Your task to perform on an android device: turn off priority inbox in the gmail app Image 0: 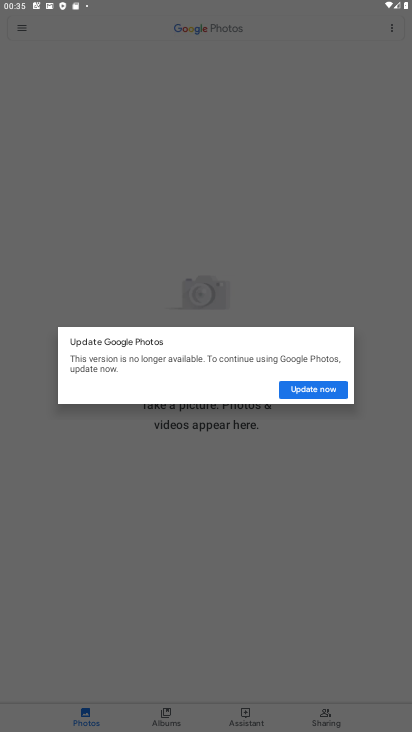
Step 0: press home button
Your task to perform on an android device: turn off priority inbox in the gmail app Image 1: 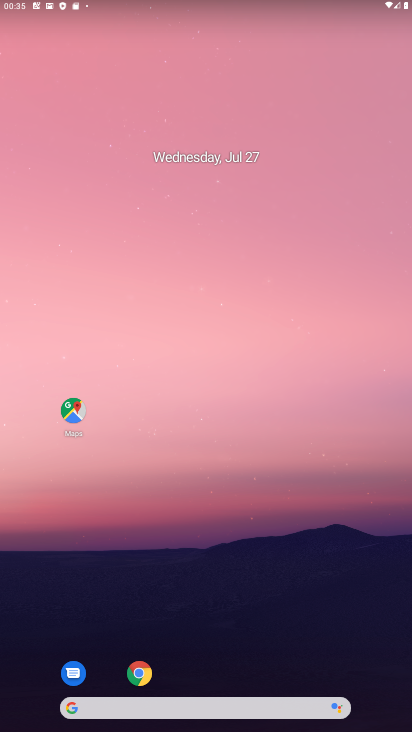
Step 1: drag from (182, 655) to (201, 288)
Your task to perform on an android device: turn off priority inbox in the gmail app Image 2: 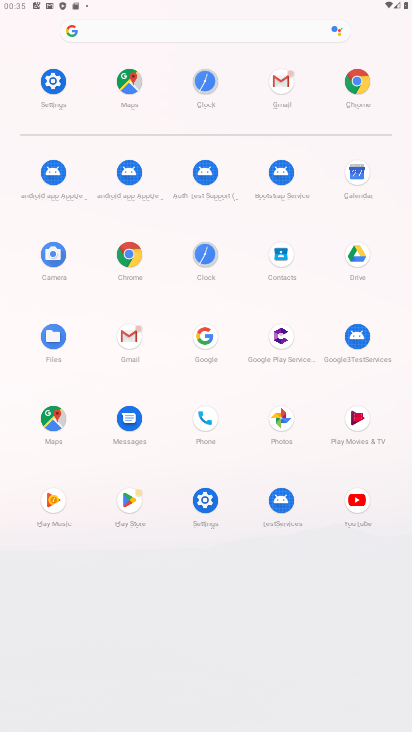
Step 2: click (131, 327)
Your task to perform on an android device: turn off priority inbox in the gmail app Image 3: 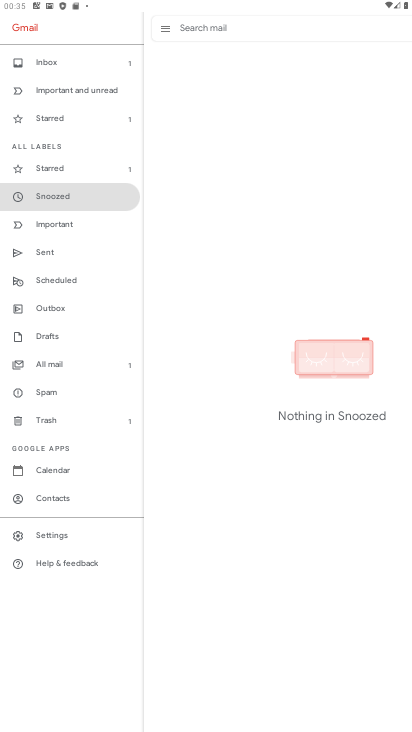
Step 3: click (46, 532)
Your task to perform on an android device: turn off priority inbox in the gmail app Image 4: 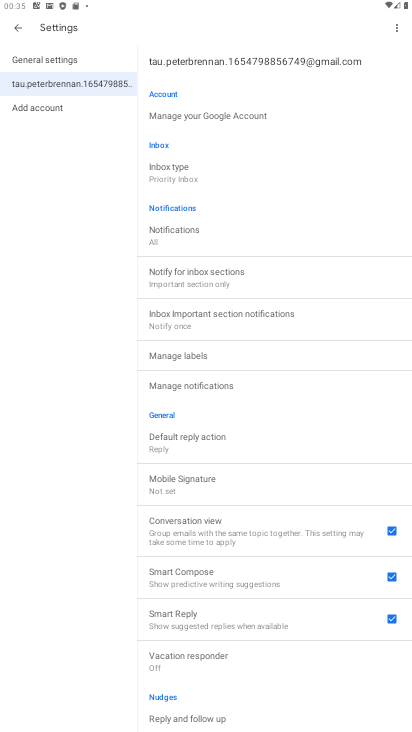
Step 4: click (200, 172)
Your task to perform on an android device: turn off priority inbox in the gmail app Image 5: 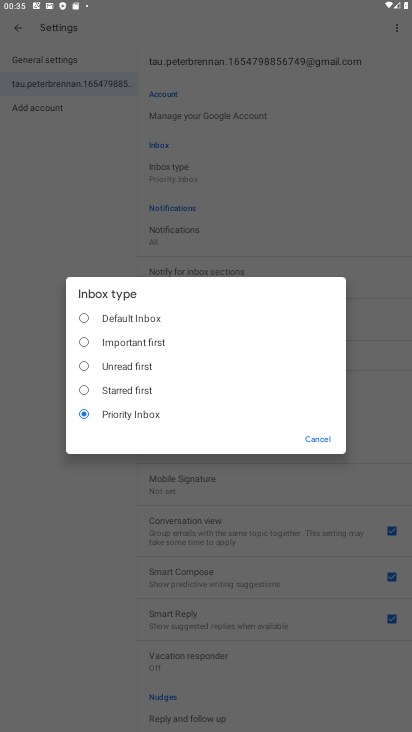
Step 5: click (115, 314)
Your task to perform on an android device: turn off priority inbox in the gmail app Image 6: 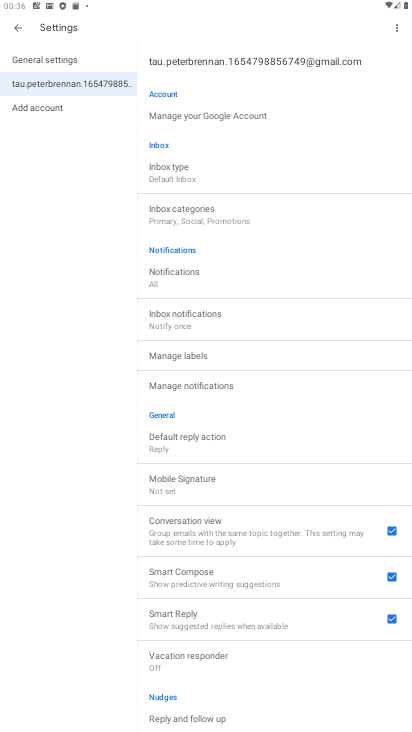
Step 6: task complete